Your task to perform on an android device: What's the weather? Image 0: 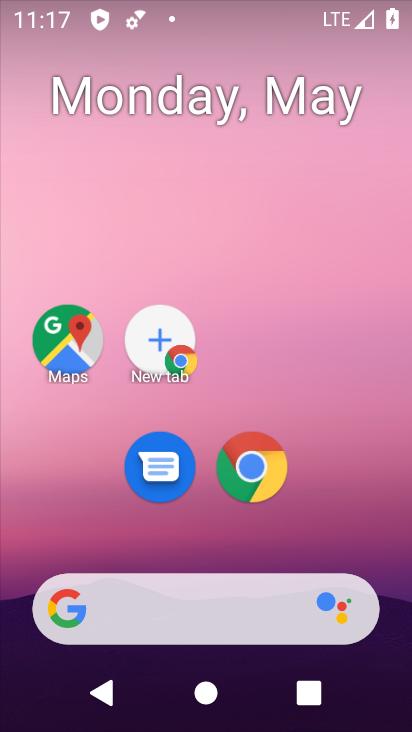
Step 0: click (184, 16)
Your task to perform on an android device: What's the weather? Image 1: 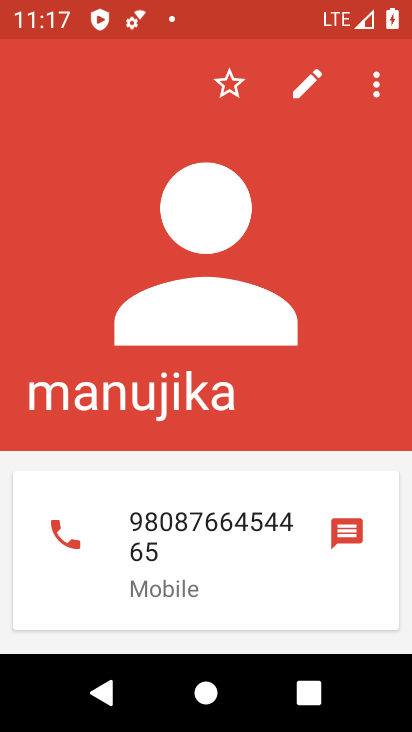
Step 1: press back button
Your task to perform on an android device: What's the weather? Image 2: 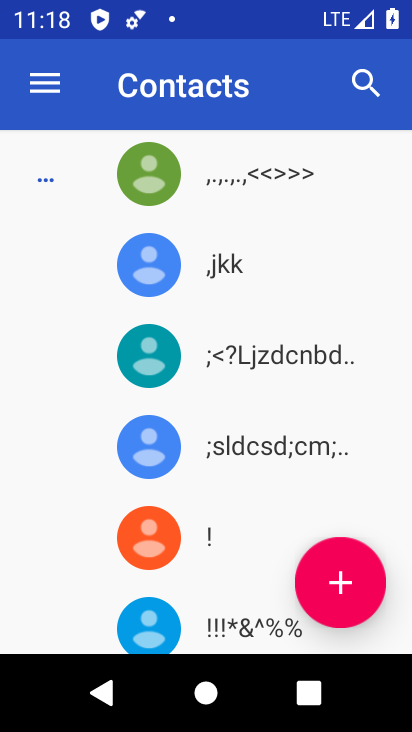
Step 2: press home button
Your task to perform on an android device: What's the weather? Image 3: 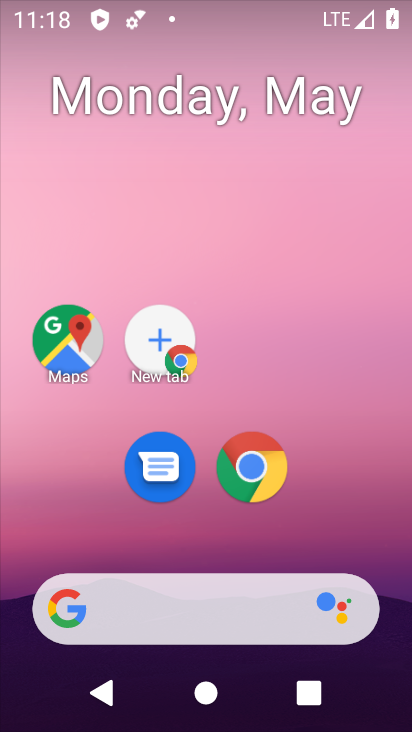
Step 3: drag from (1, 139) to (361, 400)
Your task to perform on an android device: What's the weather? Image 4: 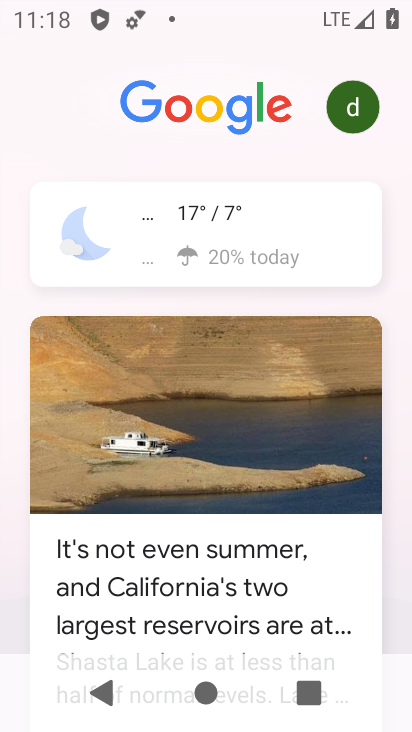
Step 4: click (207, 241)
Your task to perform on an android device: What's the weather? Image 5: 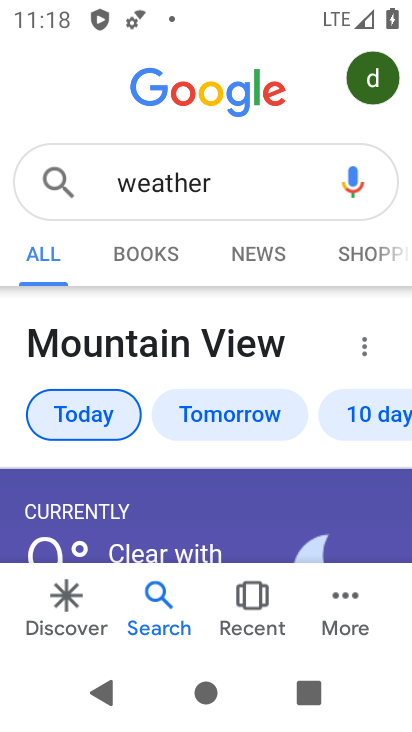
Step 5: task complete